Your task to perform on an android device: Open location settings Image 0: 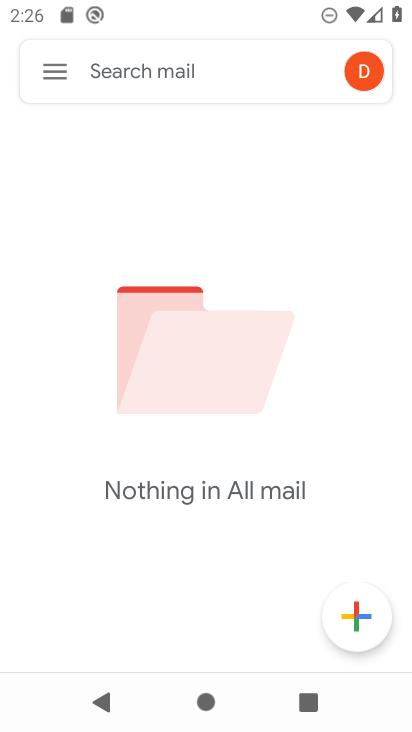
Step 0: press home button
Your task to perform on an android device: Open location settings Image 1: 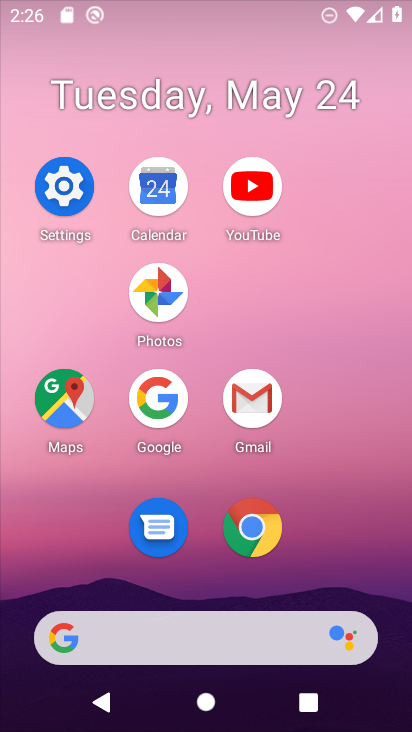
Step 1: click (68, 171)
Your task to perform on an android device: Open location settings Image 2: 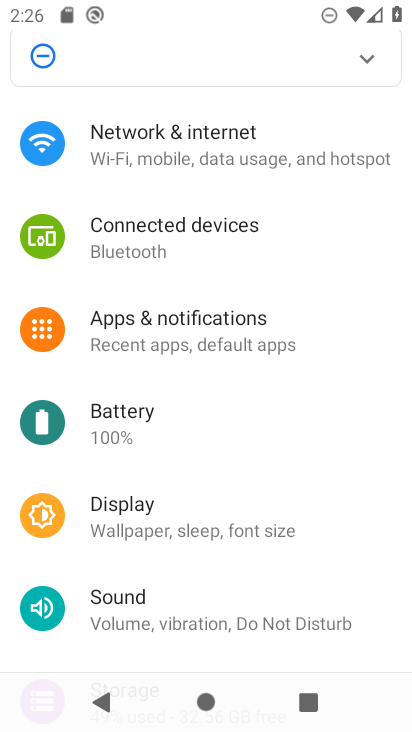
Step 2: drag from (248, 438) to (206, 203)
Your task to perform on an android device: Open location settings Image 3: 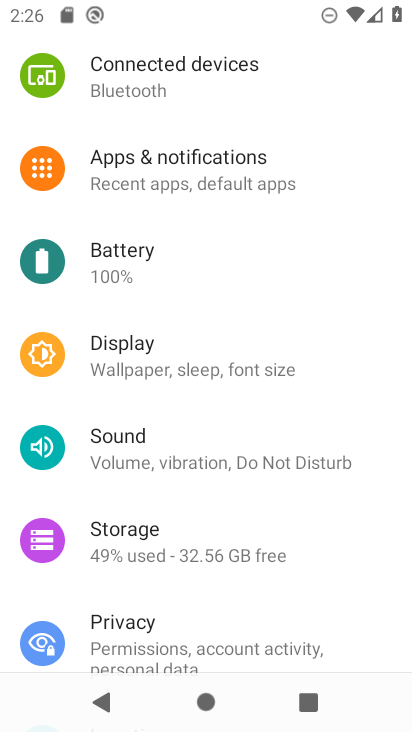
Step 3: drag from (326, 589) to (247, 251)
Your task to perform on an android device: Open location settings Image 4: 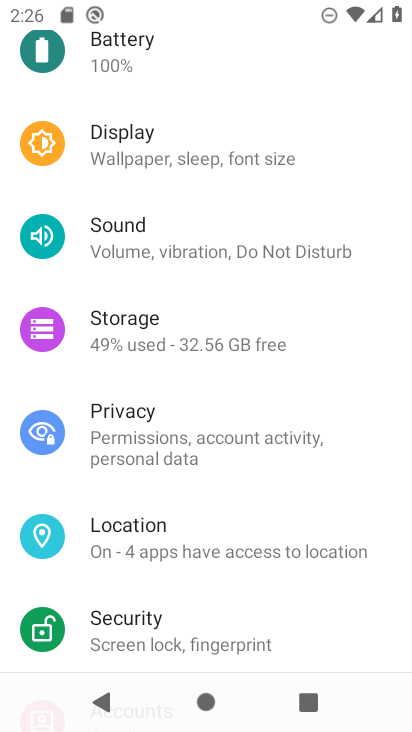
Step 4: click (249, 529)
Your task to perform on an android device: Open location settings Image 5: 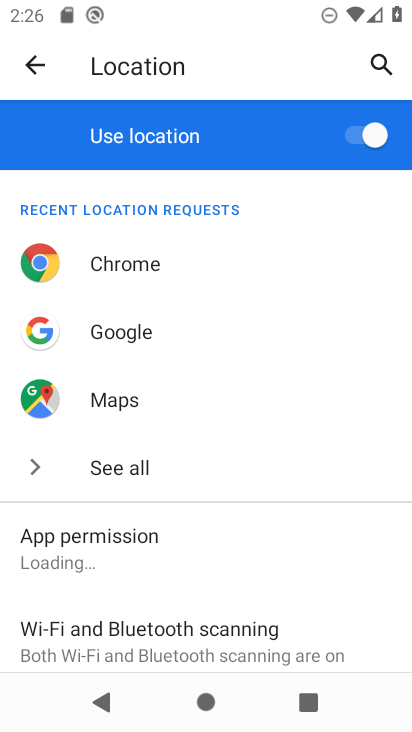
Step 5: task complete